Your task to perform on an android device: turn off notifications settings in the gmail app Image 0: 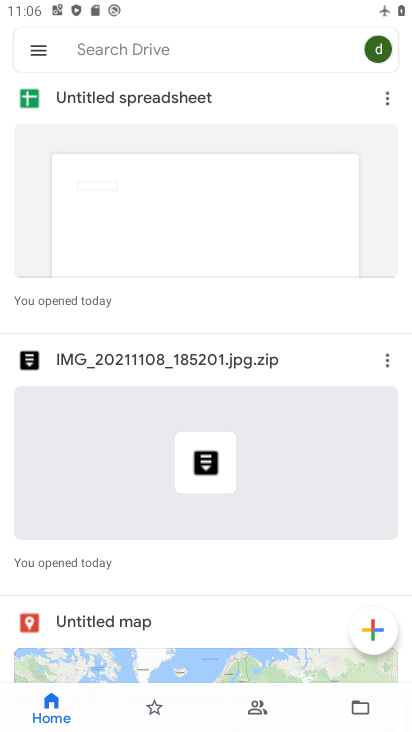
Step 0: press home button
Your task to perform on an android device: turn off notifications settings in the gmail app Image 1: 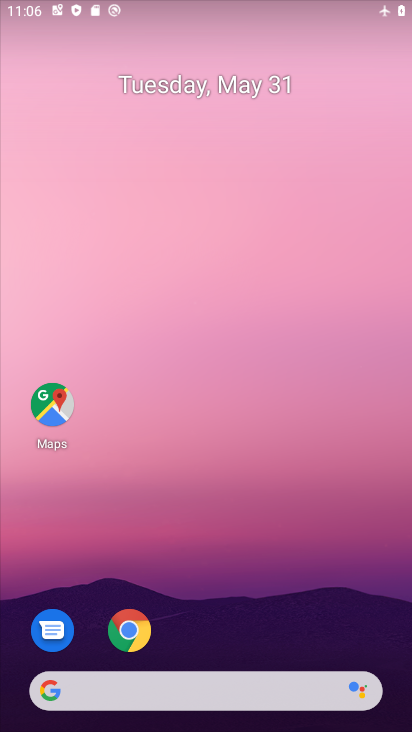
Step 1: drag from (213, 665) to (271, 359)
Your task to perform on an android device: turn off notifications settings in the gmail app Image 2: 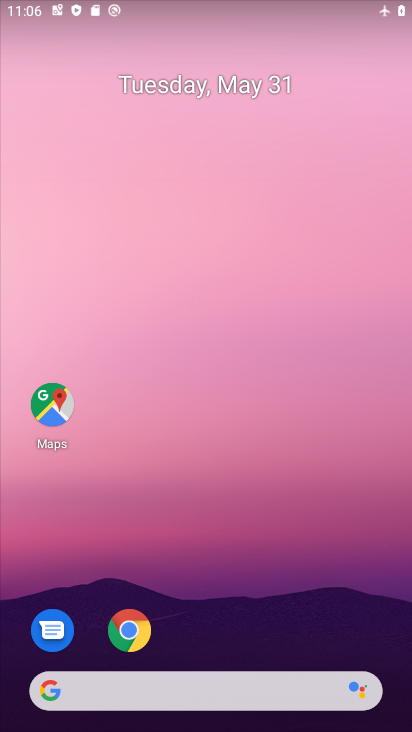
Step 2: drag from (171, 662) to (234, 91)
Your task to perform on an android device: turn off notifications settings in the gmail app Image 3: 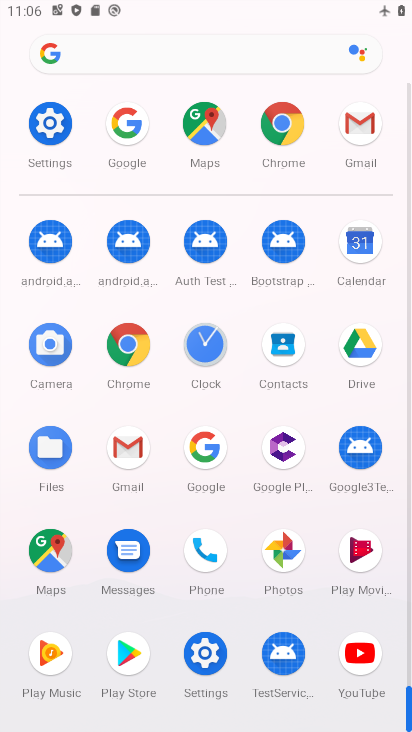
Step 3: click (130, 466)
Your task to perform on an android device: turn off notifications settings in the gmail app Image 4: 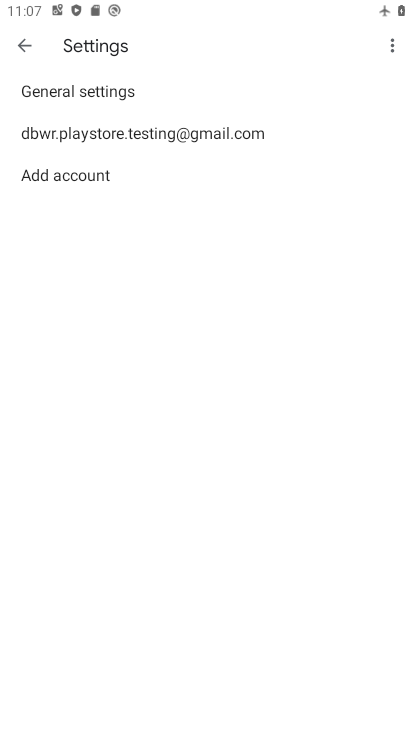
Step 4: click (127, 93)
Your task to perform on an android device: turn off notifications settings in the gmail app Image 5: 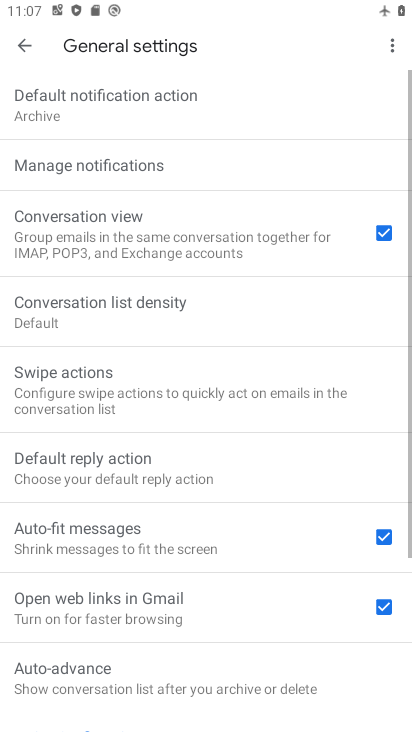
Step 5: click (152, 159)
Your task to perform on an android device: turn off notifications settings in the gmail app Image 6: 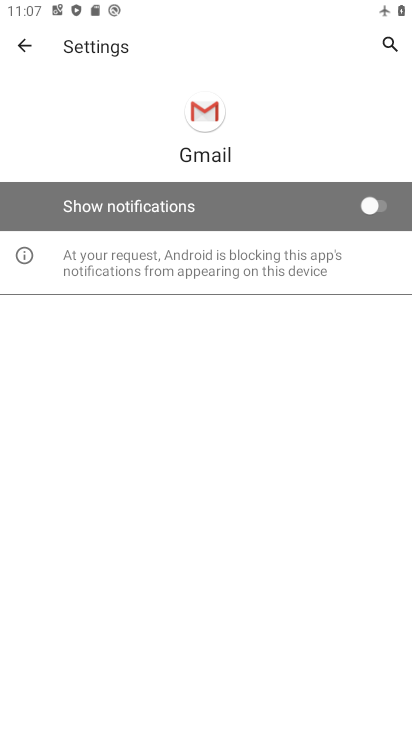
Step 6: task complete